Your task to perform on an android device: Open the phone app and click the voicemail tab. Image 0: 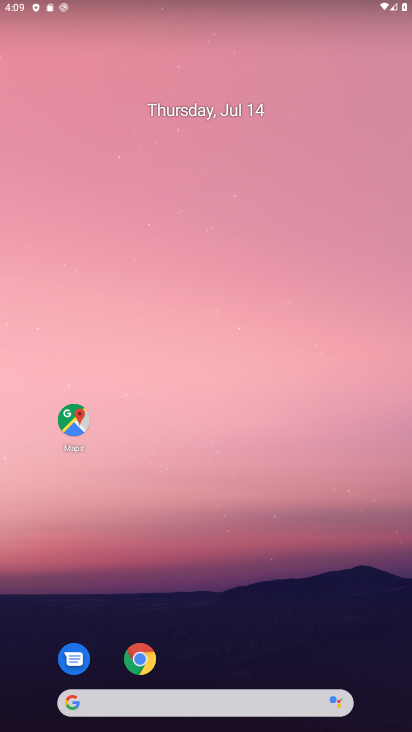
Step 0: click (410, 458)
Your task to perform on an android device: Open the phone app and click the voicemail tab. Image 1: 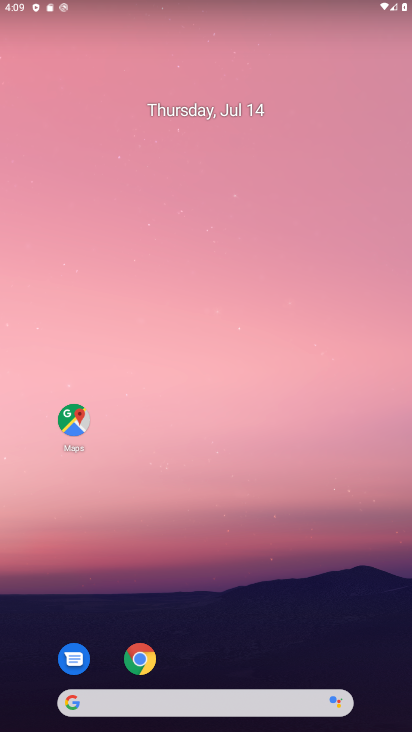
Step 1: drag from (244, 639) to (208, 279)
Your task to perform on an android device: Open the phone app and click the voicemail tab. Image 2: 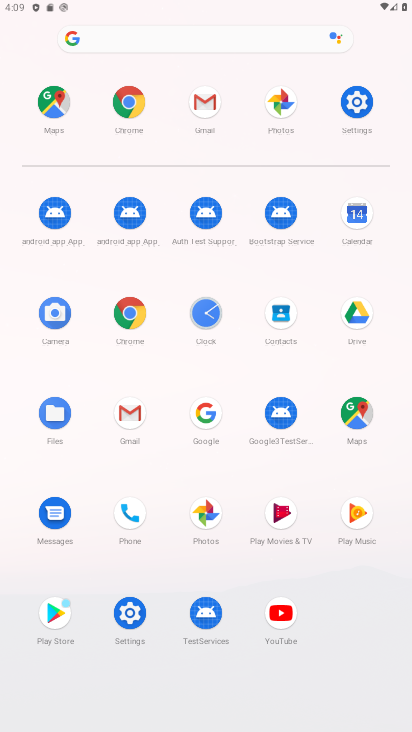
Step 2: click (116, 479)
Your task to perform on an android device: Open the phone app and click the voicemail tab. Image 3: 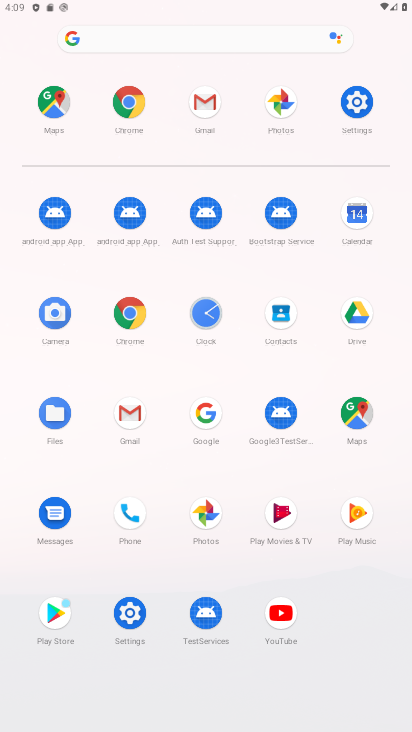
Step 3: click (129, 515)
Your task to perform on an android device: Open the phone app and click the voicemail tab. Image 4: 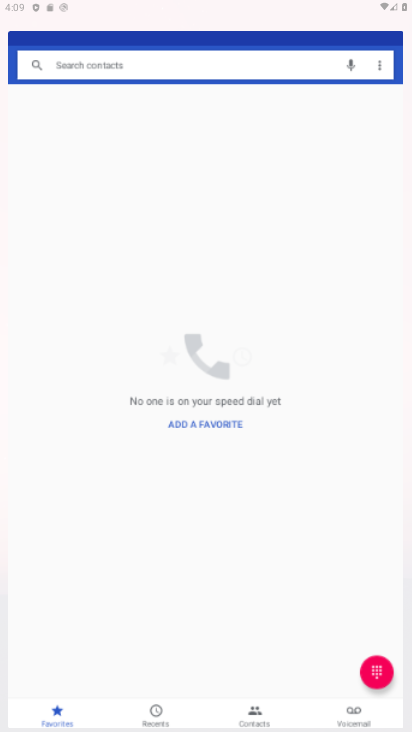
Step 4: click (131, 520)
Your task to perform on an android device: Open the phone app and click the voicemail tab. Image 5: 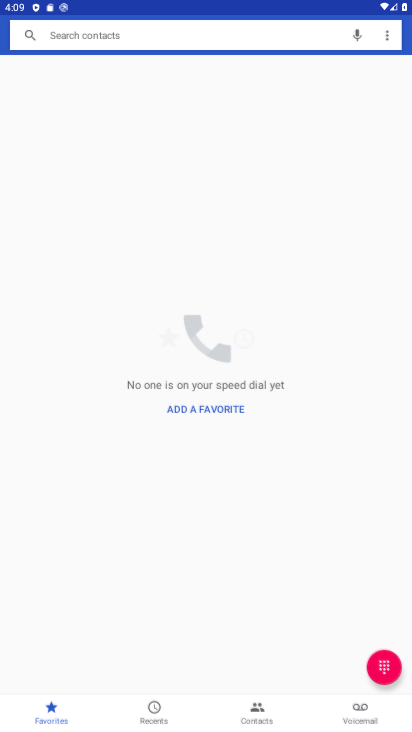
Step 5: click (131, 520)
Your task to perform on an android device: Open the phone app and click the voicemail tab. Image 6: 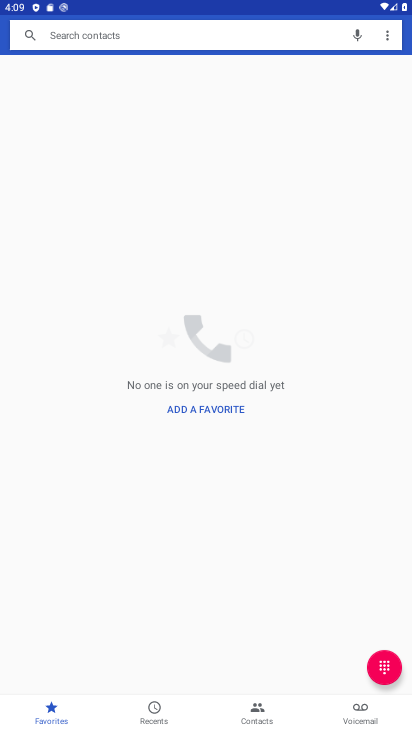
Step 6: click (131, 520)
Your task to perform on an android device: Open the phone app and click the voicemail tab. Image 7: 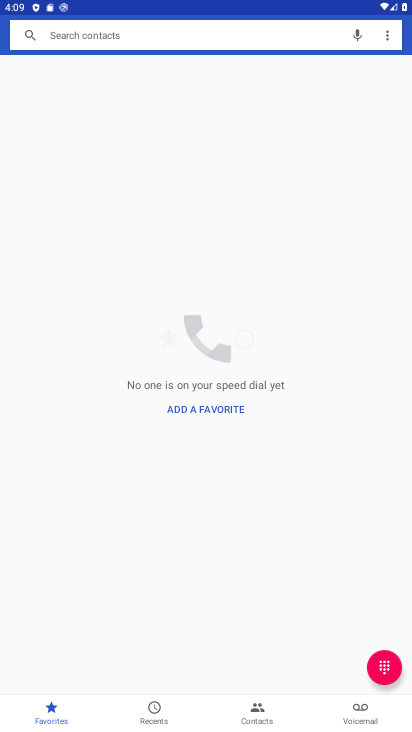
Step 7: click (364, 709)
Your task to perform on an android device: Open the phone app and click the voicemail tab. Image 8: 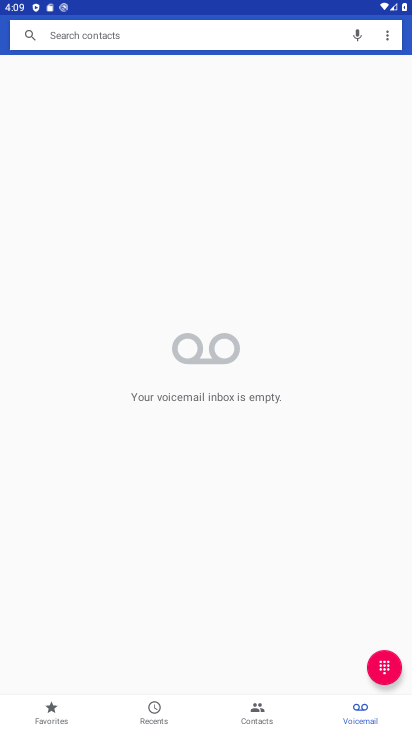
Step 8: click (359, 713)
Your task to perform on an android device: Open the phone app and click the voicemail tab. Image 9: 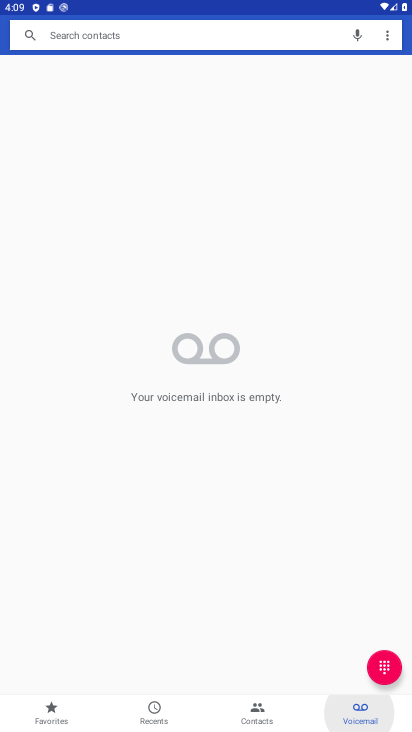
Step 9: click (360, 715)
Your task to perform on an android device: Open the phone app and click the voicemail tab. Image 10: 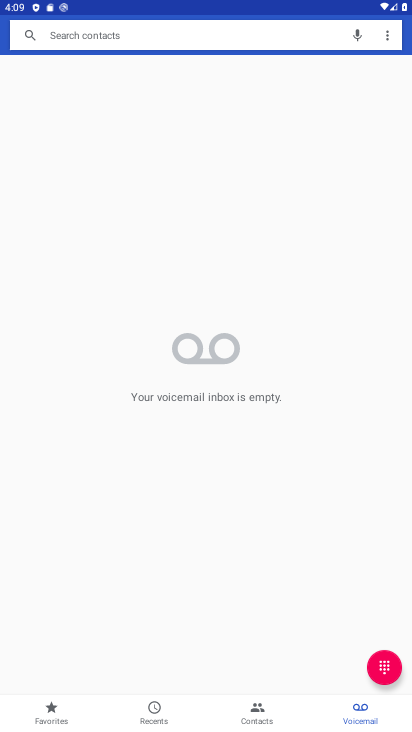
Step 10: press back button
Your task to perform on an android device: Open the phone app and click the voicemail tab. Image 11: 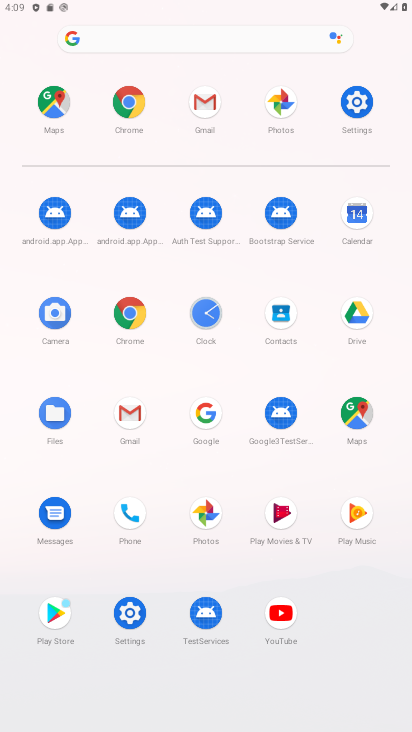
Step 11: click (126, 516)
Your task to perform on an android device: Open the phone app and click the voicemail tab. Image 12: 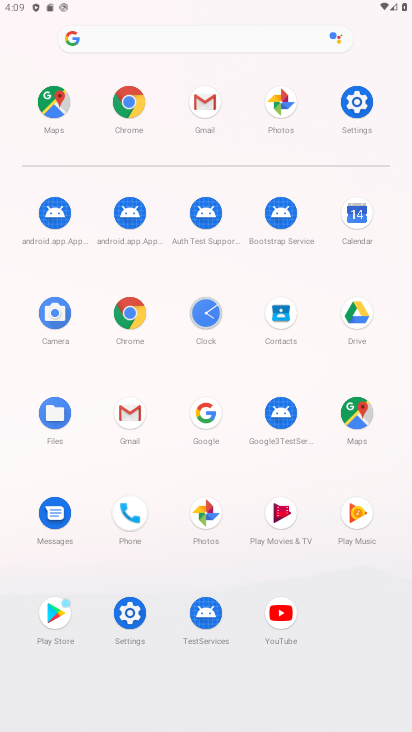
Step 12: click (127, 515)
Your task to perform on an android device: Open the phone app and click the voicemail tab. Image 13: 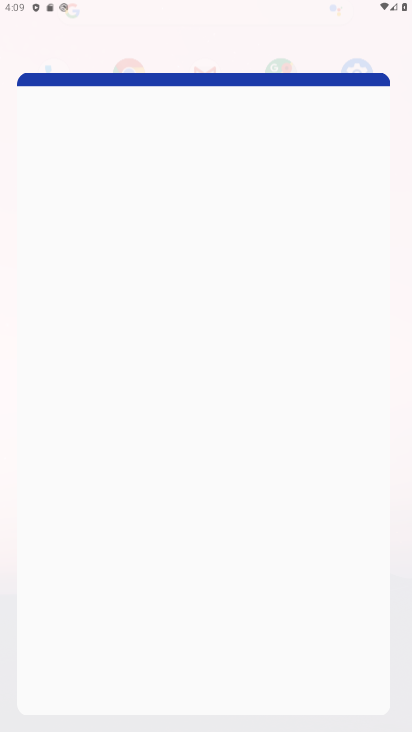
Step 13: click (127, 515)
Your task to perform on an android device: Open the phone app and click the voicemail tab. Image 14: 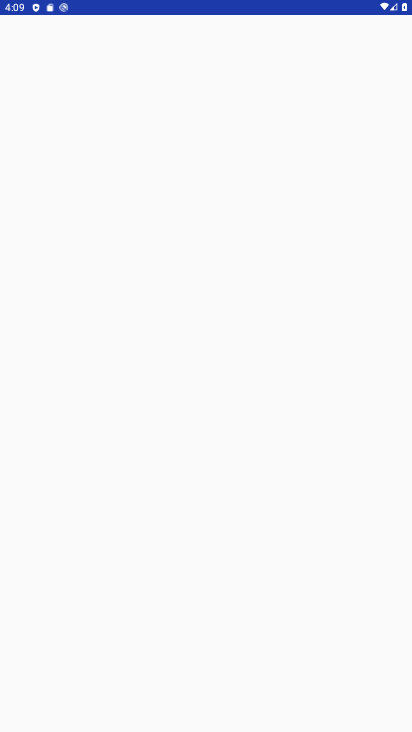
Step 14: click (129, 513)
Your task to perform on an android device: Open the phone app and click the voicemail tab. Image 15: 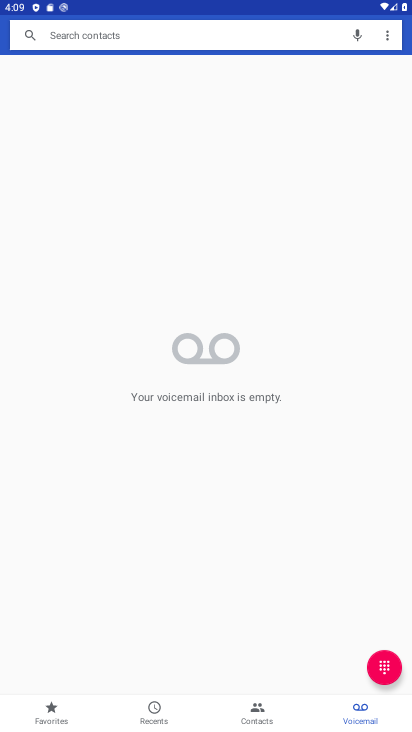
Step 15: click (364, 714)
Your task to perform on an android device: Open the phone app and click the voicemail tab. Image 16: 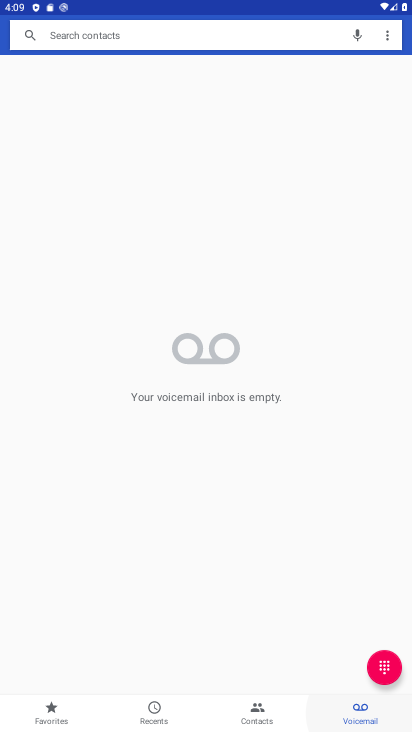
Step 16: click (365, 712)
Your task to perform on an android device: Open the phone app and click the voicemail tab. Image 17: 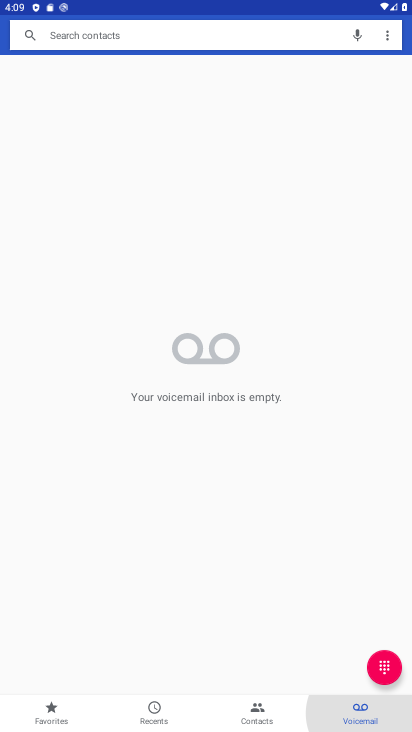
Step 17: click (367, 708)
Your task to perform on an android device: Open the phone app and click the voicemail tab. Image 18: 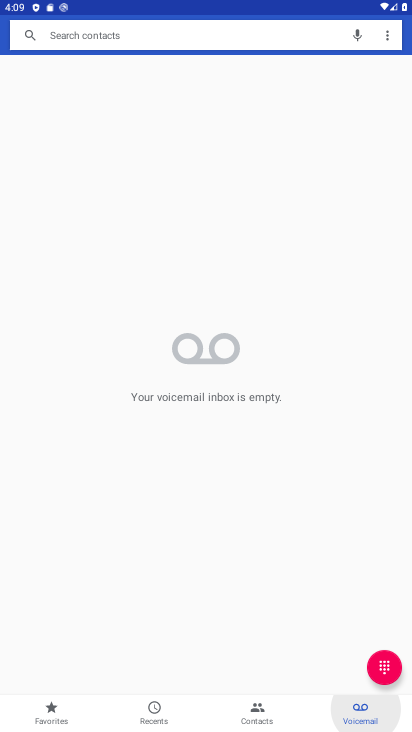
Step 18: click (367, 708)
Your task to perform on an android device: Open the phone app and click the voicemail tab. Image 19: 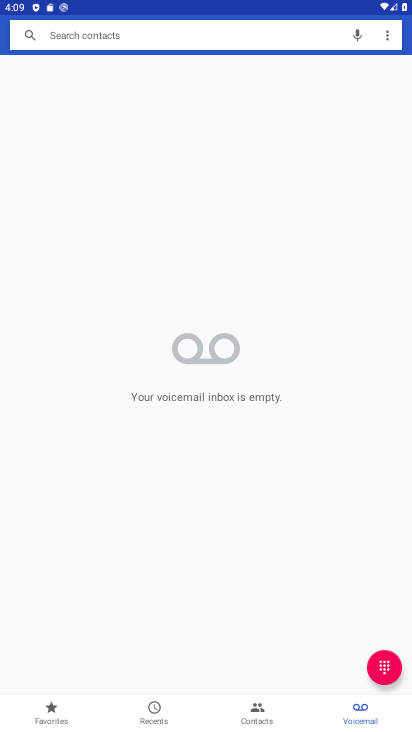
Step 19: task complete